Your task to perform on an android device: Go to display settings Image 0: 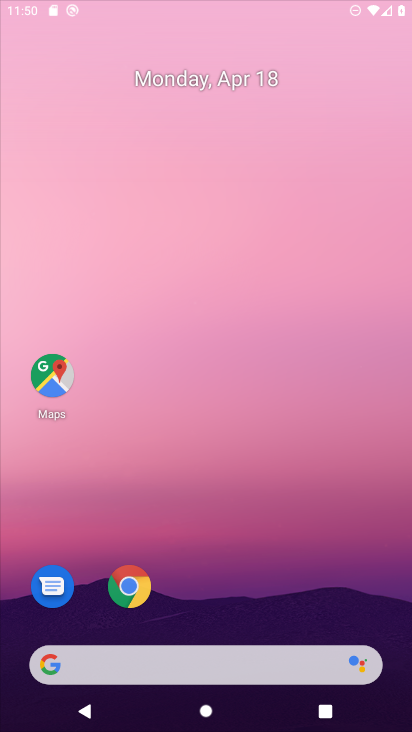
Step 0: click (197, 36)
Your task to perform on an android device: Go to display settings Image 1: 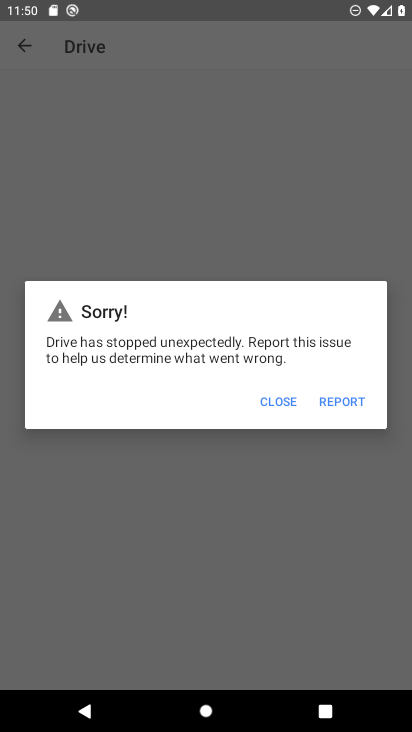
Step 1: press home button
Your task to perform on an android device: Go to display settings Image 2: 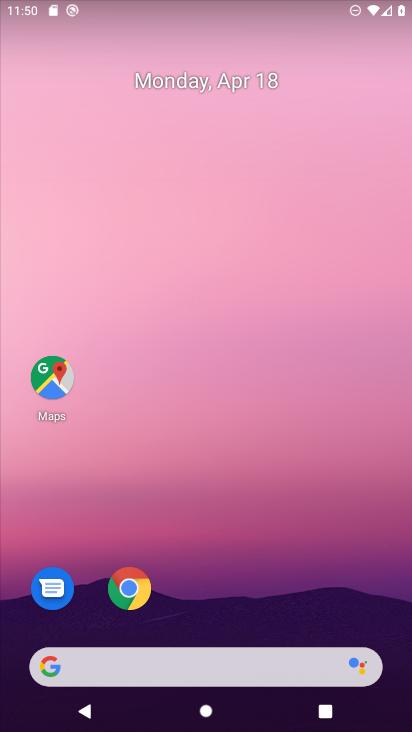
Step 2: drag from (297, 493) to (187, 28)
Your task to perform on an android device: Go to display settings Image 3: 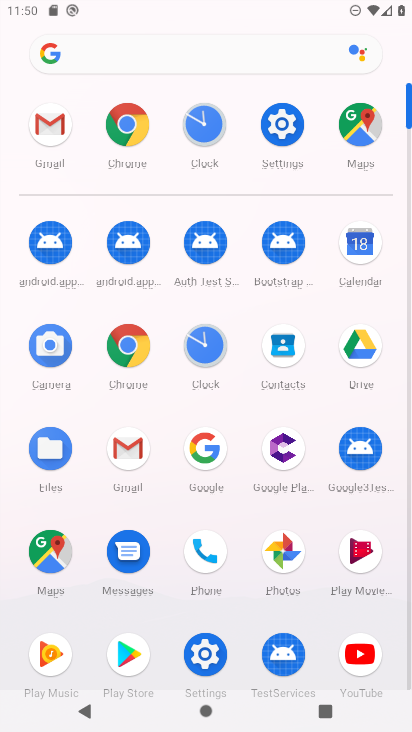
Step 3: click (280, 123)
Your task to perform on an android device: Go to display settings Image 4: 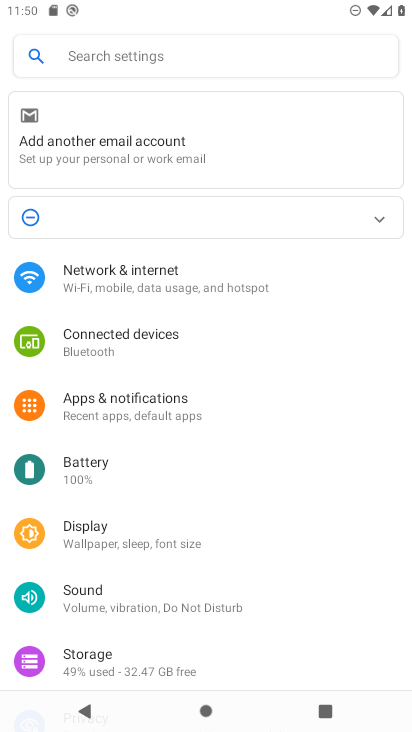
Step 4: drag from (279, 503) to (277, 137)
Your task to perform on an android device: Go to display settings Image 5: 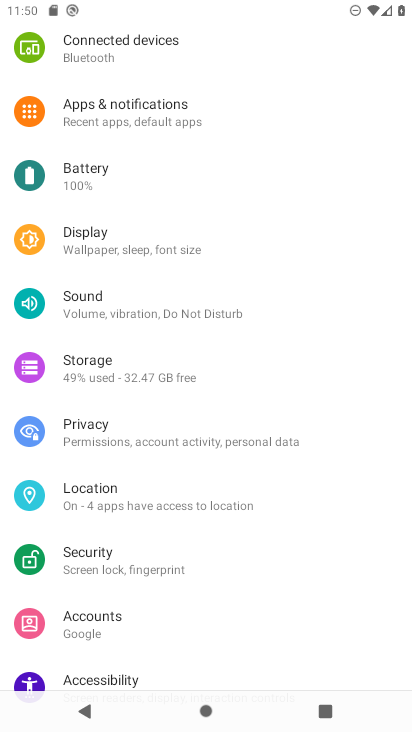
Step 5: click (152, 242)
Your task to perform on an android device: Go to display settings Image 6: 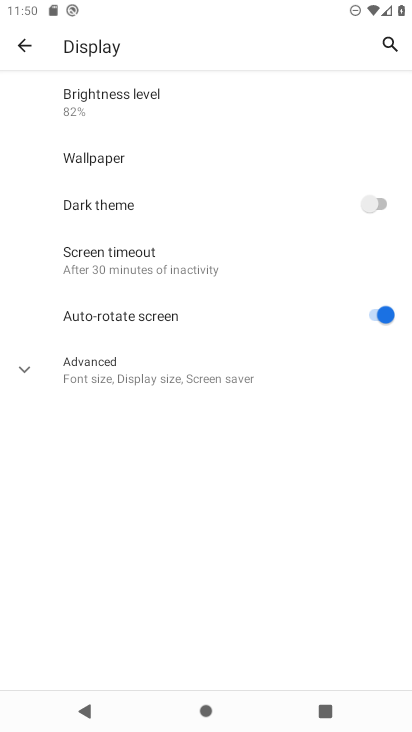
Step 6: click (57, 359)
Your task to perform on an android device: Go to display settings Image 7: 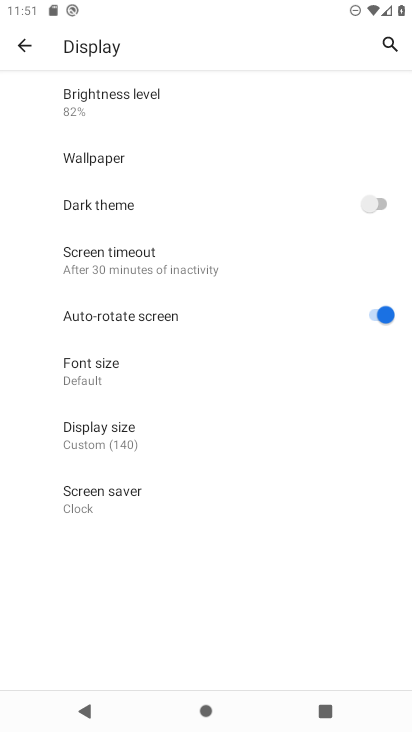
Step 7: task complete